Your task to perform on an android device: Search for pizza restaurants on Maps Image 0: 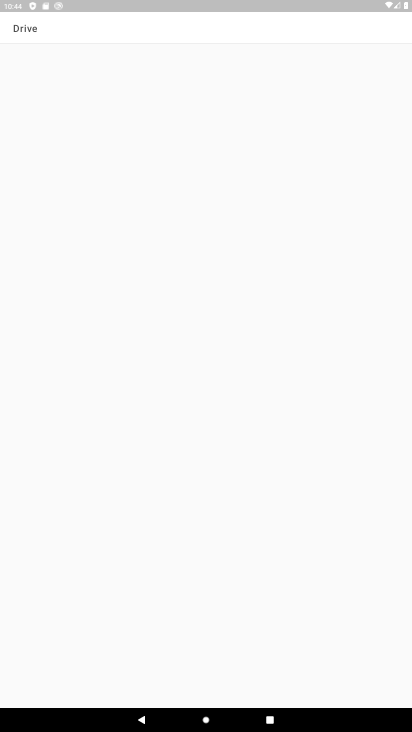
Step 0: press home button
Your task to perform on an android device: Search for pizza restaurants on Maps Image 1: 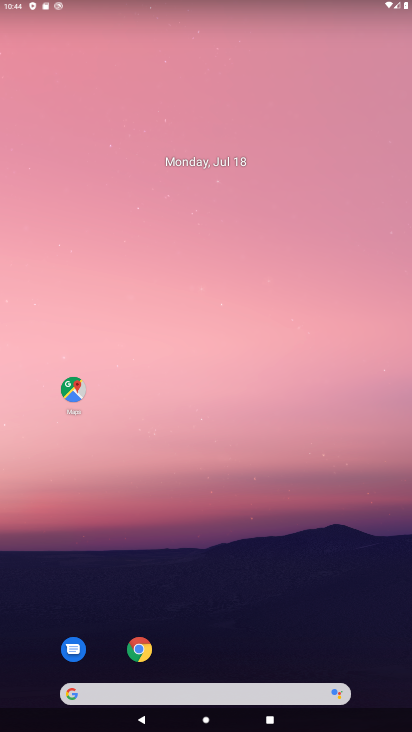
Step 1: click (66, 384)
Your task to perform on an android device: Search for pizza restaurants on Maps Image 2: 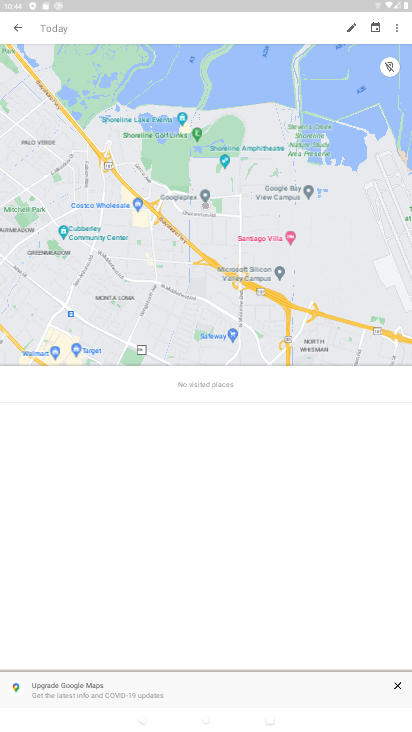
Step 2: click (19, 24)
Your task to perform on an android device: Search for pizza restaurants on Maps Image 3: 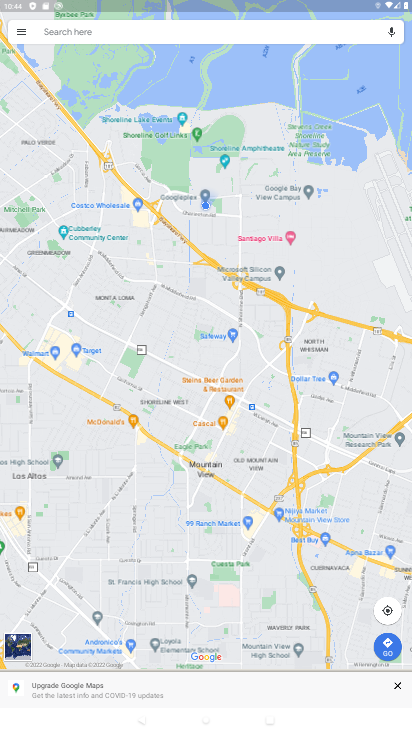
Step 3: click (97, 30)
Your task to perform on an android device: Search for pizza restaurants on Maps Image 4: 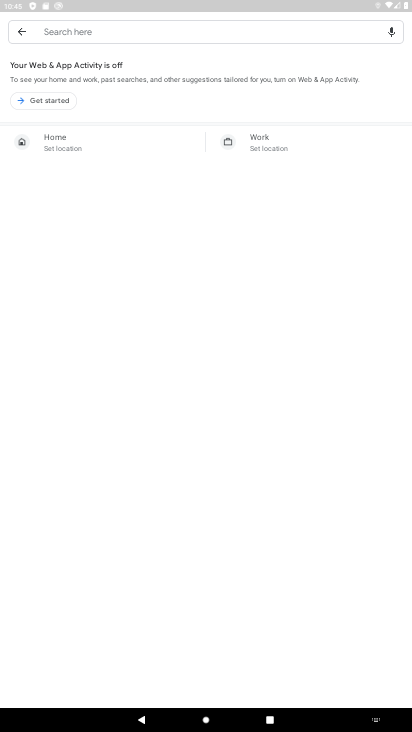
Step 4: type "pizza restaurants"
Your task to perform on an android device: Search for pizza restaurants on Maps Image 5: 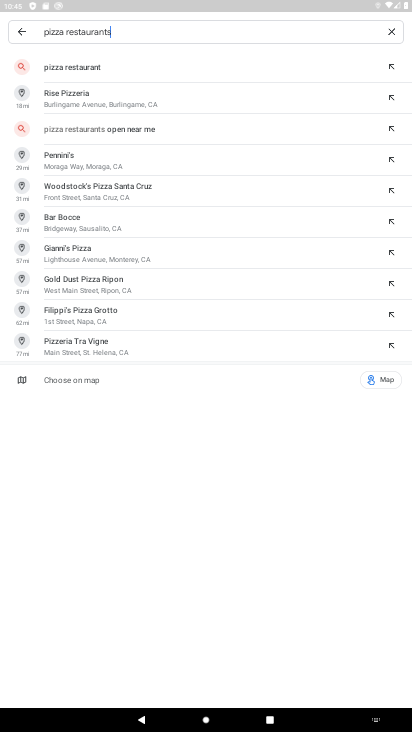
Step 5: click (66, 57)
Your task to perform on an android device: Search for pizza restaurants on Maps Image 6: 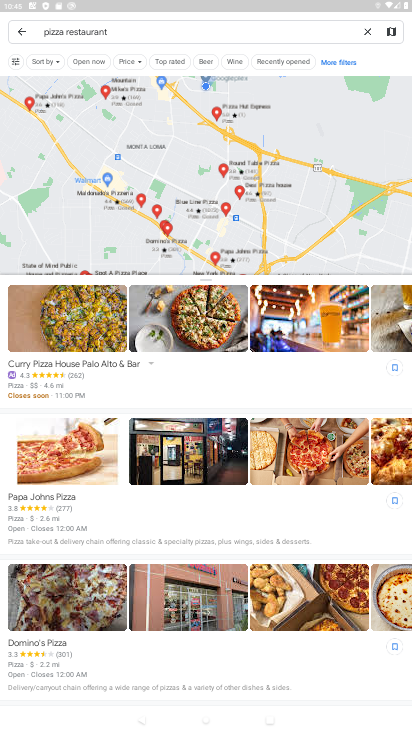
Step 6: task complete